Your task to perform on an android device: Go to Android settings Image 0: 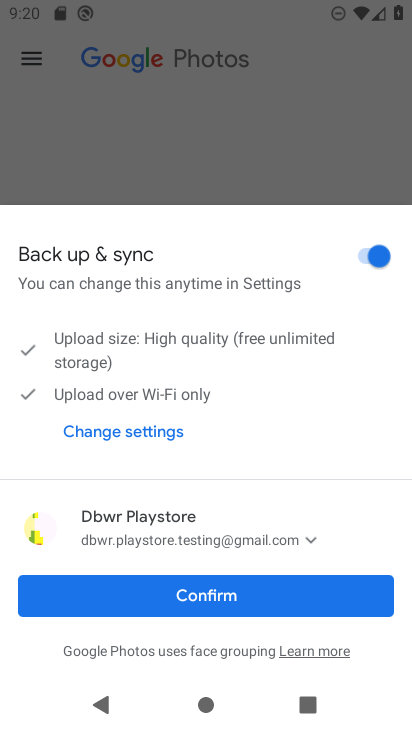
Step 0: press home button
Your task to perform on an android device: Go to Android settings Image 1: 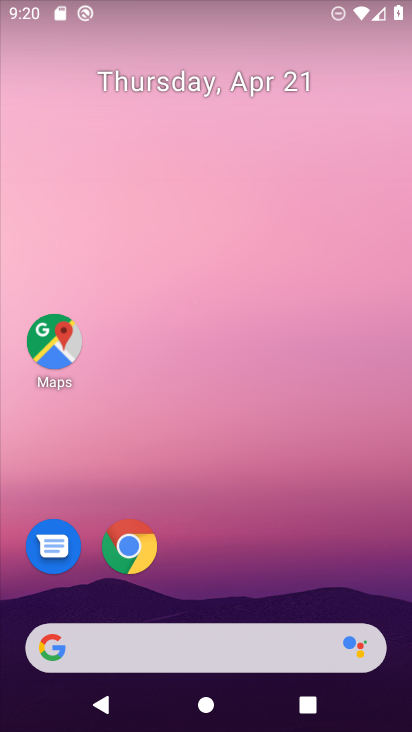
Step 1: drag from (334, 571) to (351, 146)
Your task to perform on an android device: Go to Android settings Image 2: 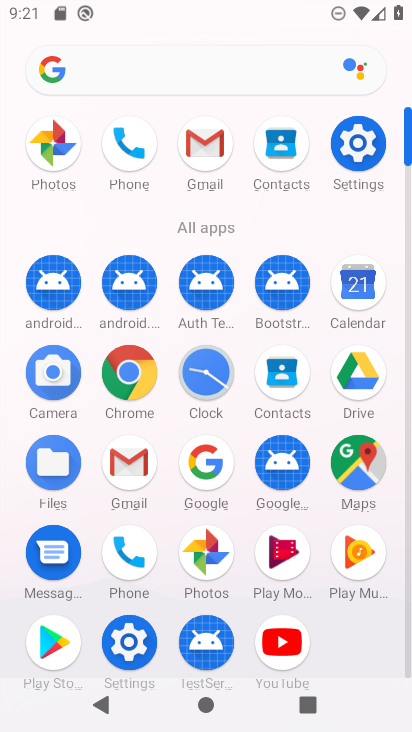
Step 2: click (358, 153)
Your task to perform on an android device: Go to Android settings Image 3: 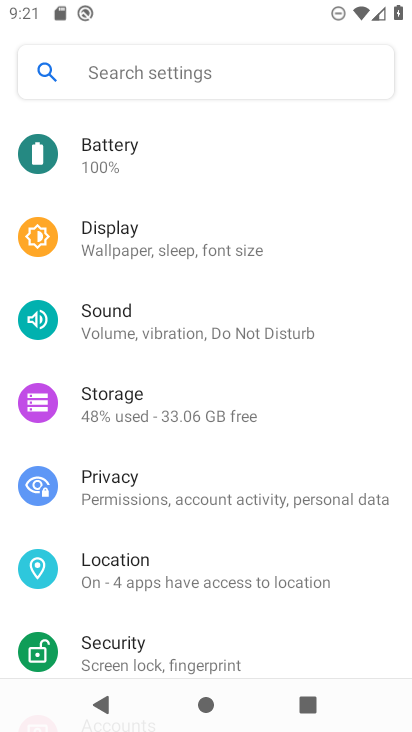
Step 3: drag from (358, 596) to (363, 249)
Your task to perform on an android device: Go to Android settings Image 4: 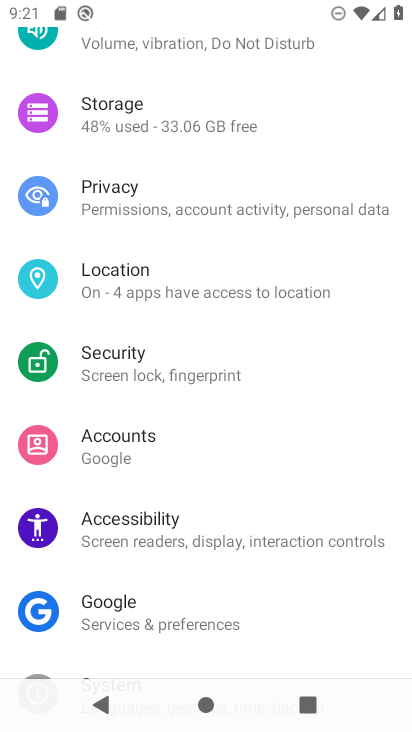
Step 4: drag from (373, 331) to (376, 246)
Your task to perform on an android device: Go to Android settings Image 5: 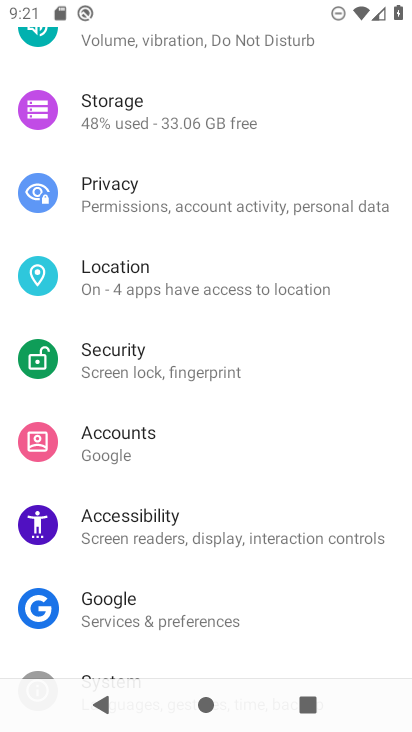
Step 5: drag from (342, 565) to (372, 238)
Your task to perform on an android device: Go to Android settings Image 6: 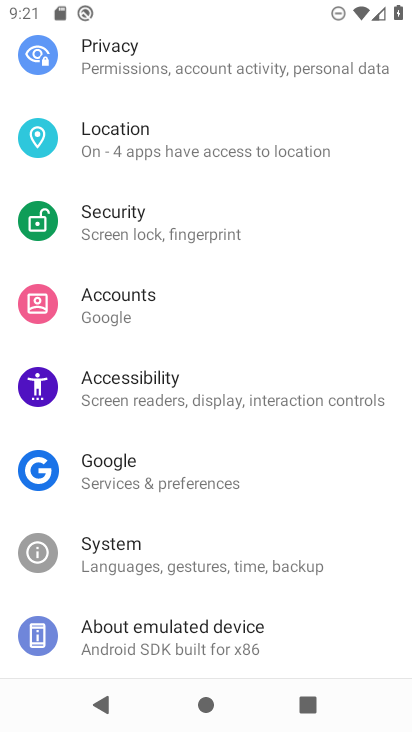
Step 6: click (238, 566)
Your task to perform on an android device: Go to Android settings Image 7: 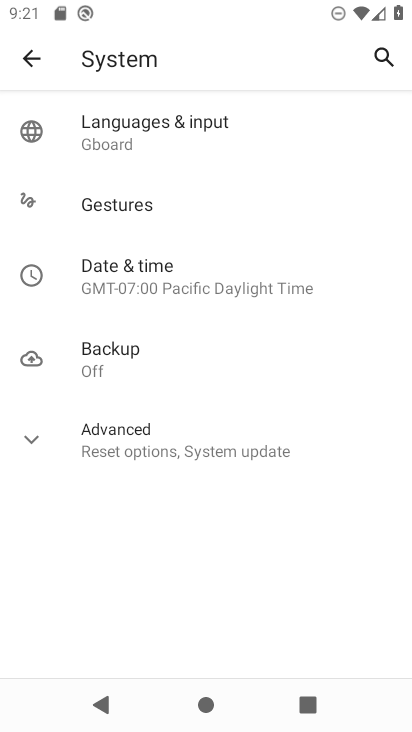
Step 7: click (243, 450)
Your task to perform on an android device: Go to Android settings Image 8: 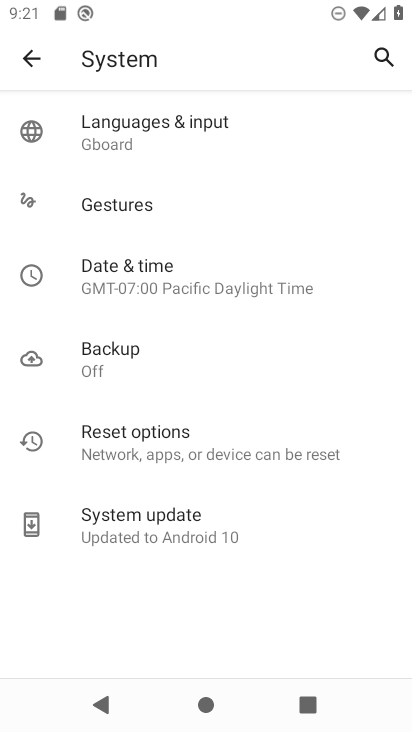
Step 8: task complete